Your task to perform on an android device: turn off wifi Image 0: 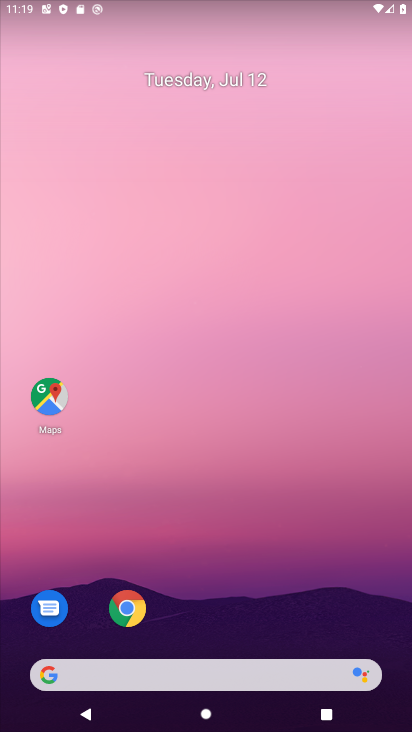
Step 0: drag from (223, 2) to (185, 470)
Your task to perform on an android device: turn off wifi Image 1: 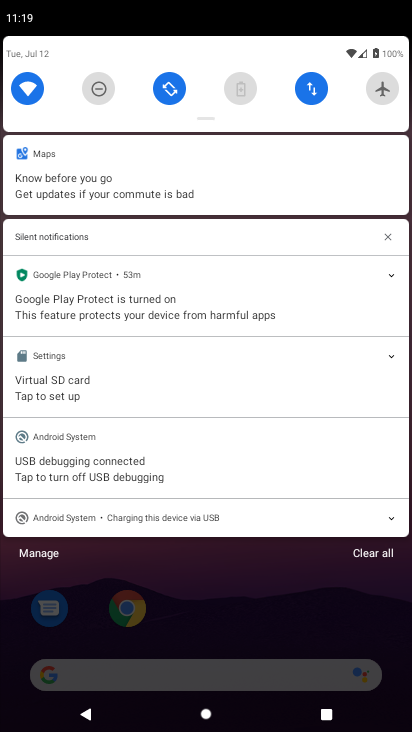
Step 1: click (27, 96)
Your task to perform on an android device: turn off wifi Image 2: 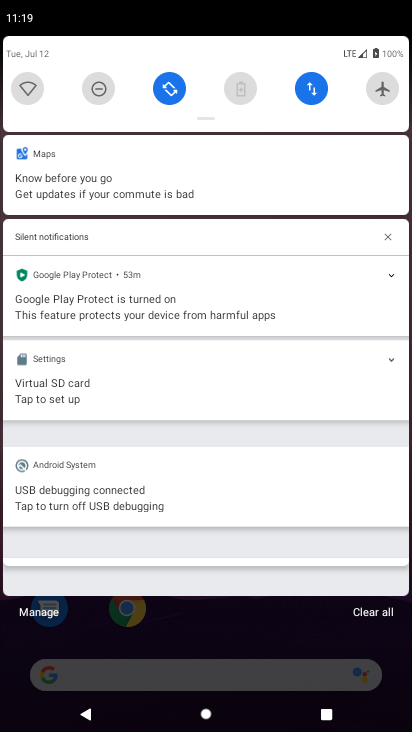
Step 2: task complete